Your task to perform on an android device: check battery use Image 0: 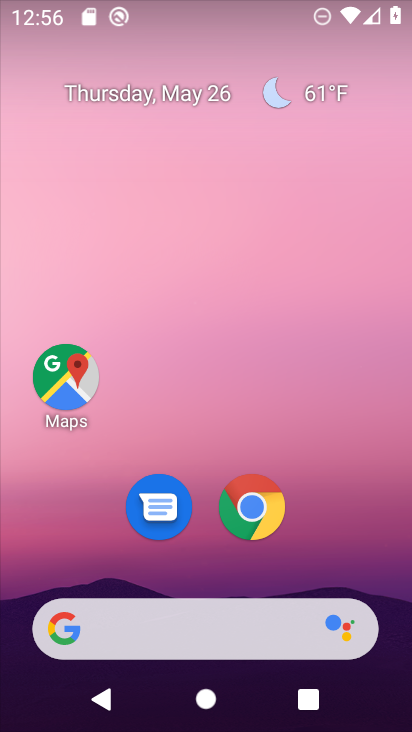
Step 0: drag from (377, 568) to (304, 168)
Your task to perform on an android device: check battery use Image 1: 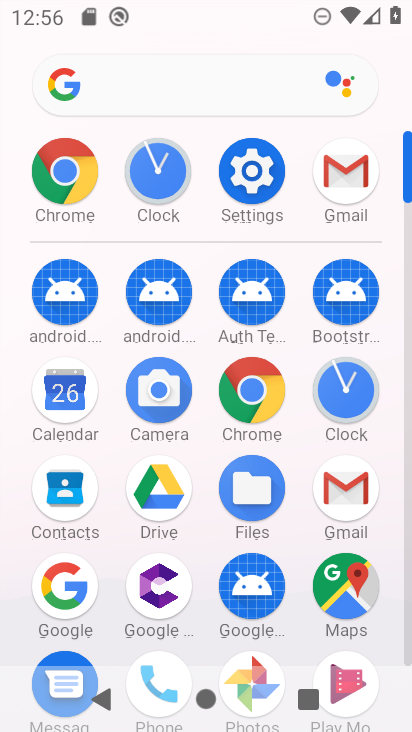
Step 1: click (181, 200)
Your task to perform on an android device: check battery use Image 2: 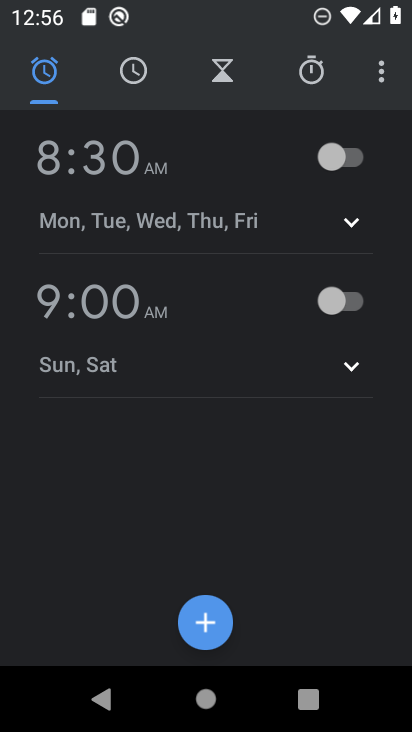
Step 2: press home button
Your task to perform on an android device: check battery use Image 3: 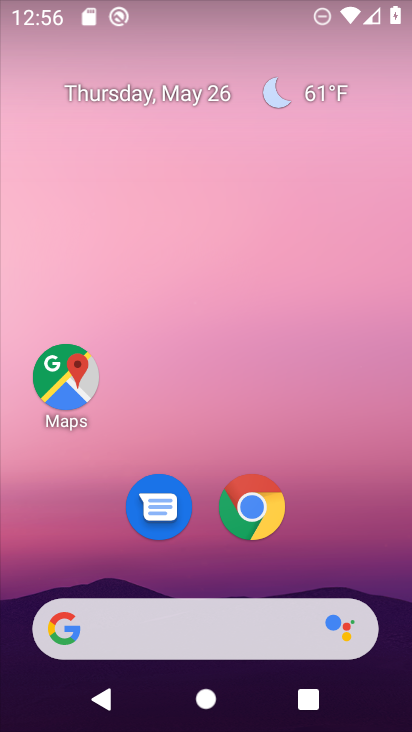
Step 3: drag from (323, 545) to (237, 143)
Your task to perform on an android device: check battery use Image 4: 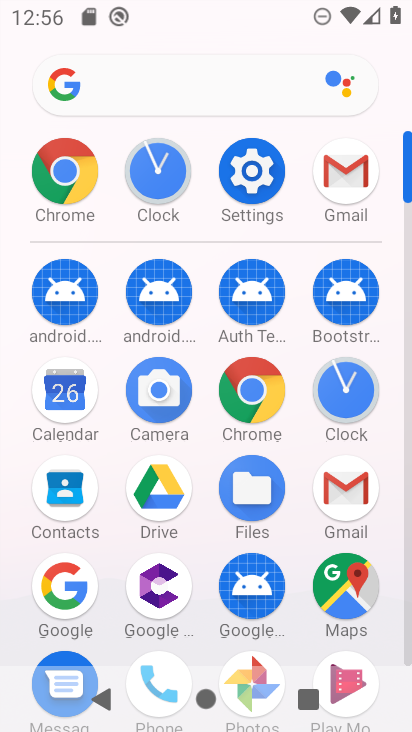
Step 4: click (228, 174)
Your task to perform on an android device: check battery use Image 5: 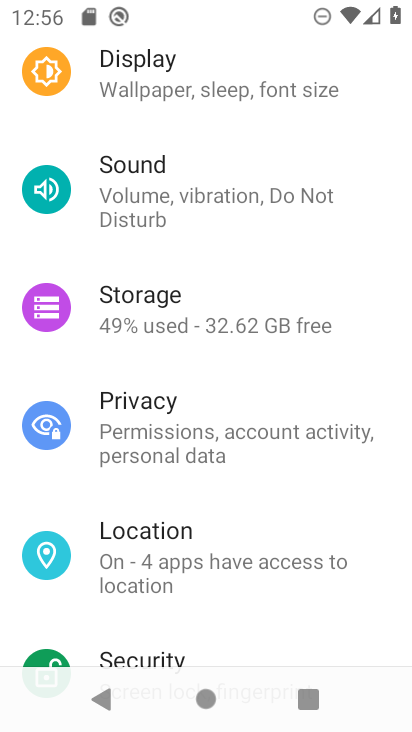
Step 5: drag from (189, 224) to (165, 507)
Your task to perform on an android device: check battery use Image 6: 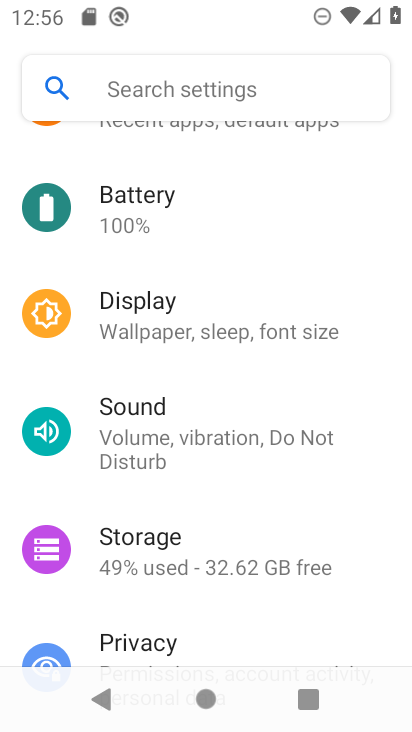
Step 6: click (168, 227)
Your task to perform on an android device: check battery use Image 7: 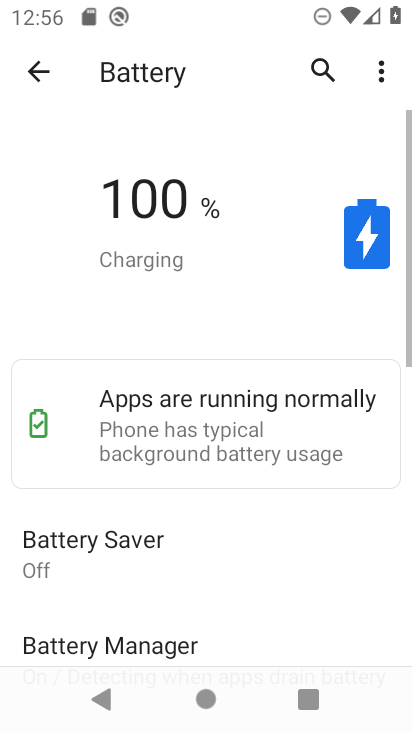
Step 7: task complete